Your task to perform on an android device: Open Wikipedia Image 0: 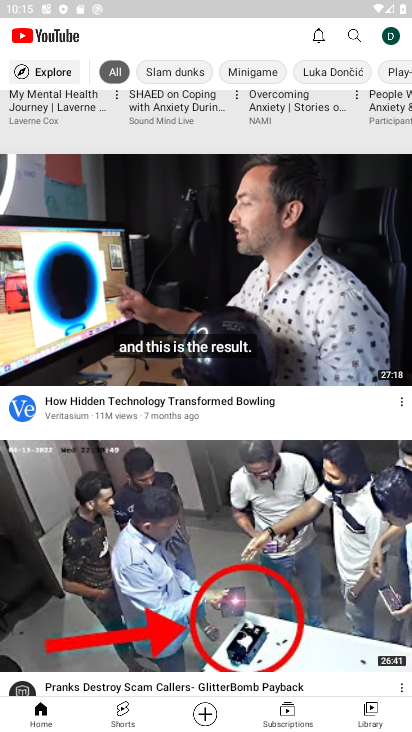
Step 0: press home button
Your task to perform on an android device: Open Wikipedia Image 1: 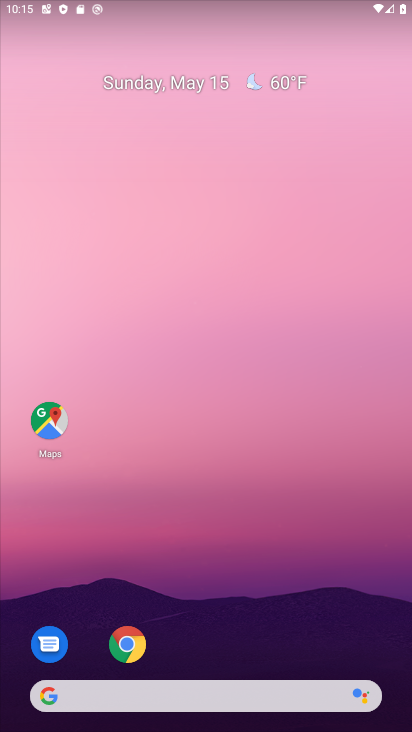
Step 1: click (125, 646)
Your task to perform on an android device: Open Wikipedia Image 2: 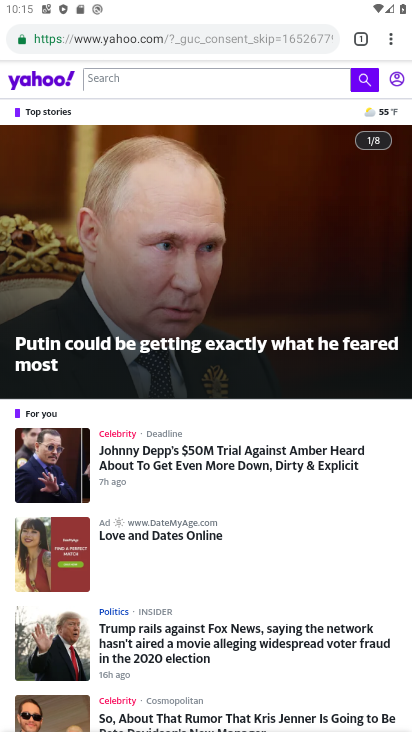
Step 2: click (365, 38)
Your task to perform on an android device: Open Wikipedia Image 3: 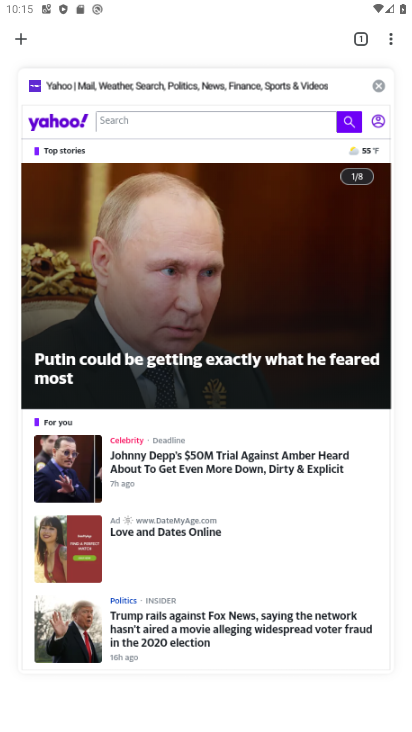
Step 3: click (394, 36)
Your task to perform on an android device: Open Wikipedia Image 4: 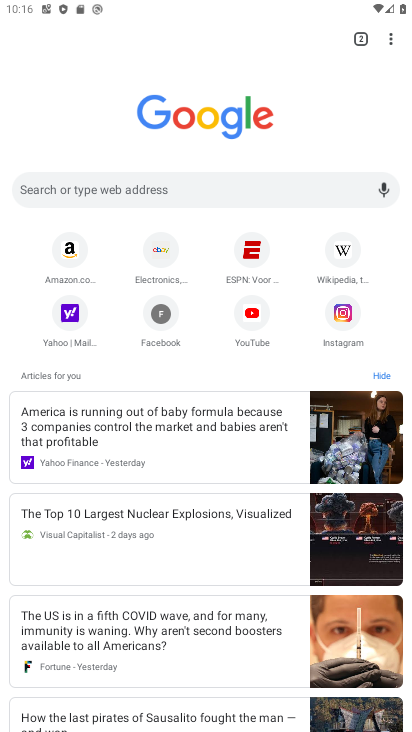
Step 4: click (340, 249)
Your task to perform on an android device: Open Wikipedia Image 5: 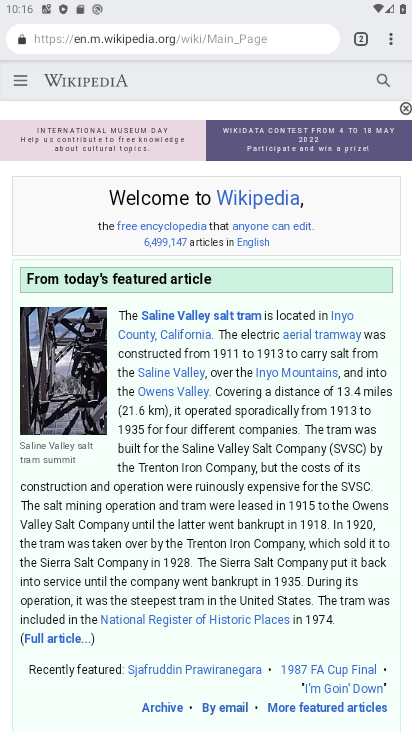
Step 5: task complete